Your task to perform on an android device: Open Google Maps and go to "Timeline" Image 0: 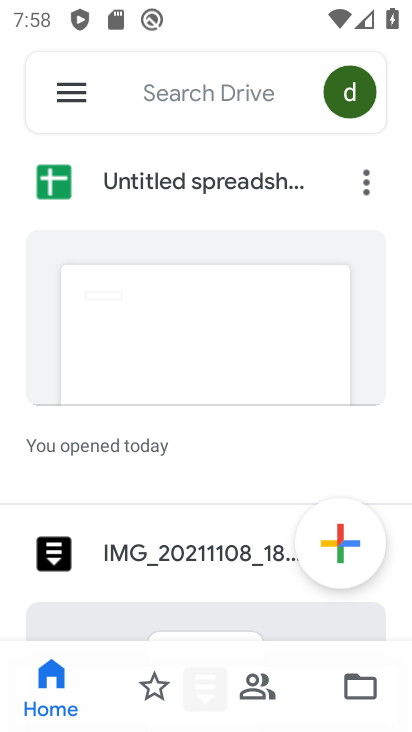
Step 0: press home button
Your task to perform on an android device: Open Google Maps and go to "Timeline" Image 1: 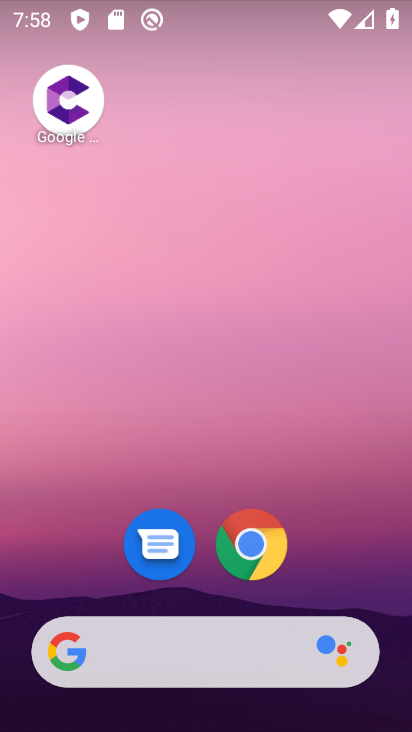
Step 1: drag from (334, 528) to (277, 0)
Your task to perform on an android device: Open Google Maps and go to "Timeline" Image 2: 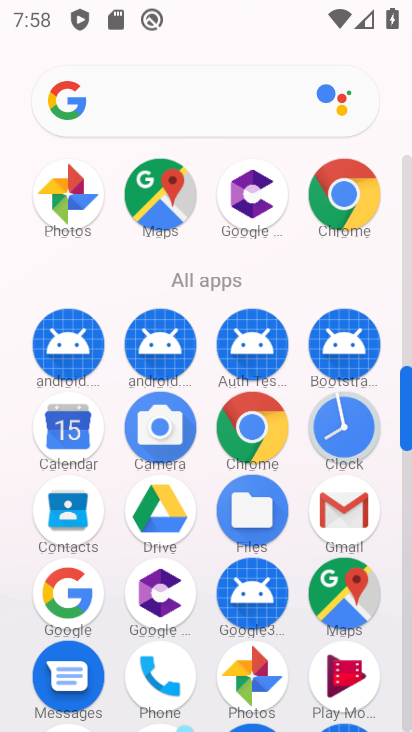
Step 2: click (157, 190)
Your task to perform on an android device: Open Google Maps and go to "Timeline" Image 3: 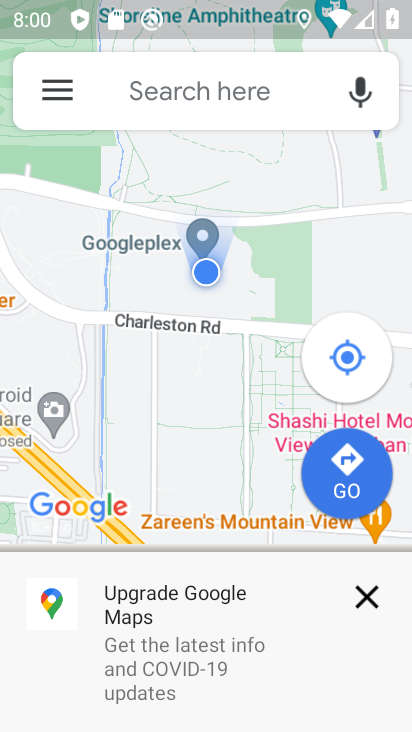
Step 3: click (52, 101)
Your task to perform on an android device: Open Google Maps and go to "Timeline" Image 4: 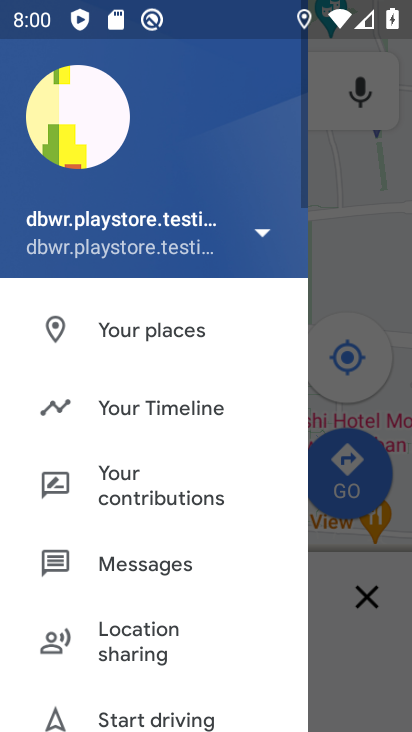
Step 4: click (153, 415)
Your task to perform on an android device: Open Google Maps and go to "Timeline" Image 5: 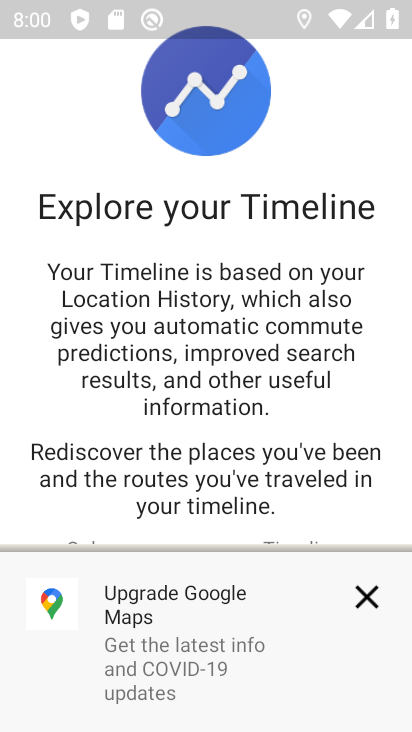
Step 5: click (365, 593)
Your task to perform on an android device: Open Google Maps and go to "Timeline" Image 6: 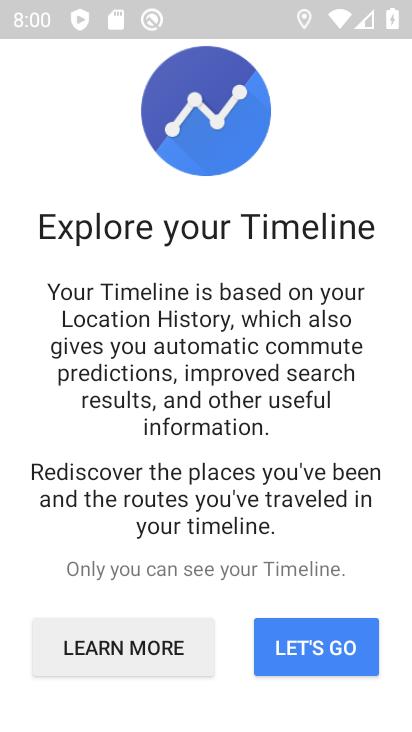
Step 6: click (360, 603)
Your task to perform on an android device: Open Google Maps and go to "Timeline" Image 7: 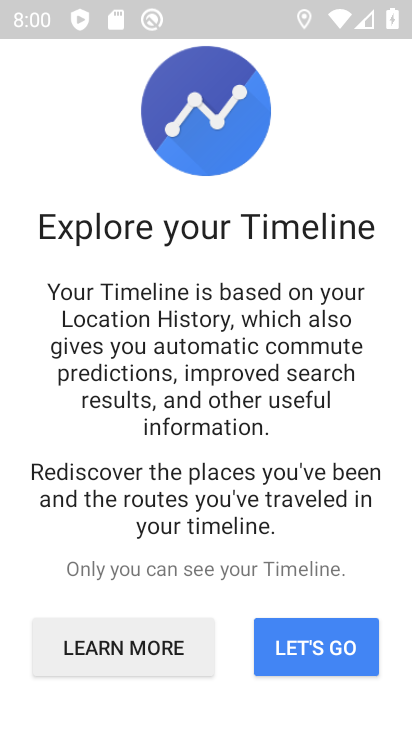
Step 7: click (342, 662)
Your task to perform on an android device: Open Google Maps and go to "Timeline" Image 8: 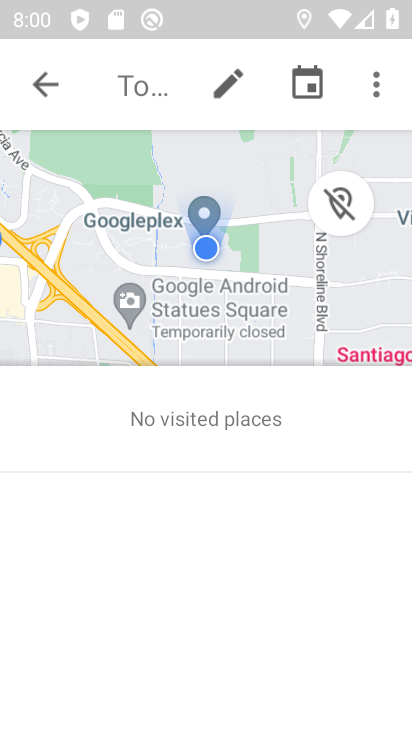
Step 8: task complete